Your task to perform on an android device: toggle translation in the chrome app Image 0: 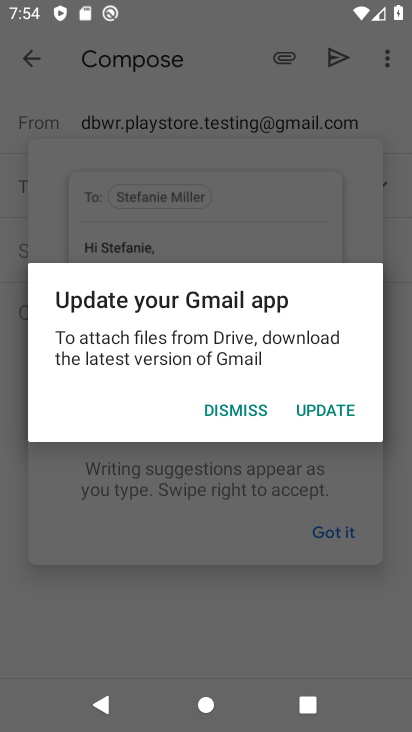
Step 0: press home button
Your task to perform on an android device: toggle translation in the chrome app Image 1: 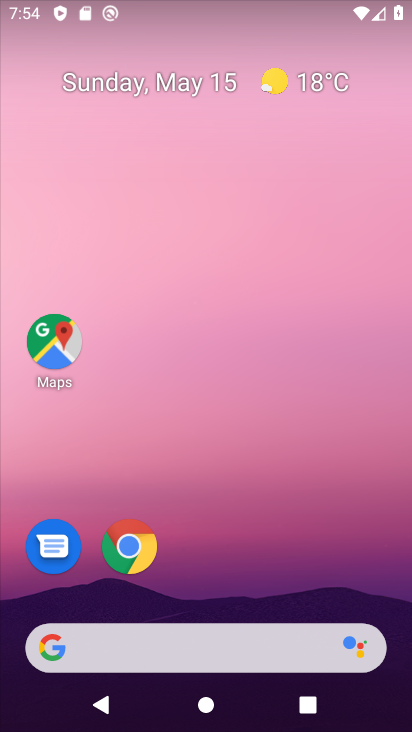
Step 1: click (127, 548)
Your task to perform on an android device: toggle translation in the chrome app Image 2: 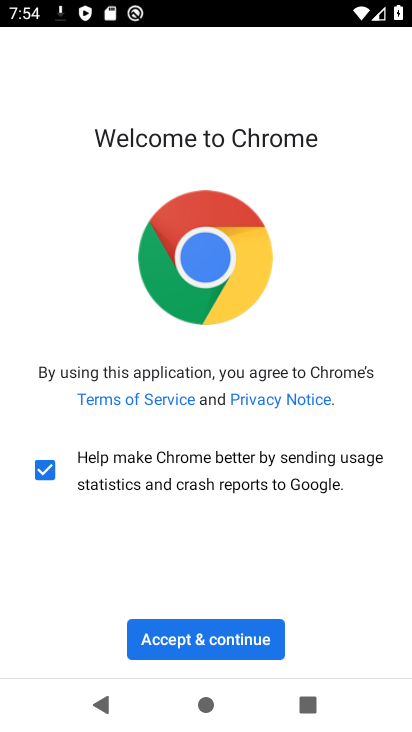
Step 2: click (209, 644)
Your task to perform on an android device: toggle translation in the chrome app Image 3: 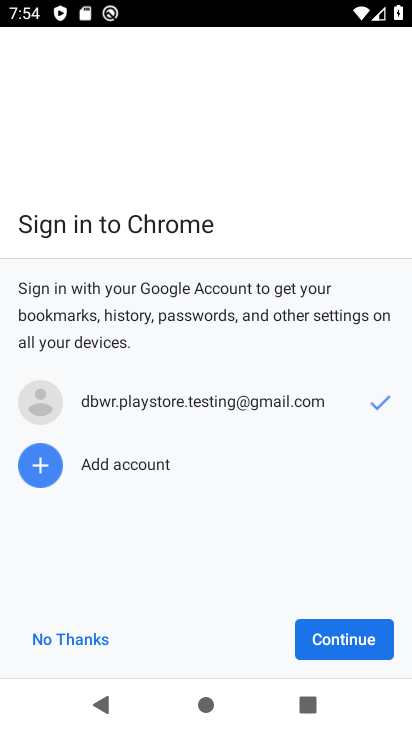
Step 3: click (324, 639)
Your task to perform on an android device: toggle translation in the chrome app Image 4: 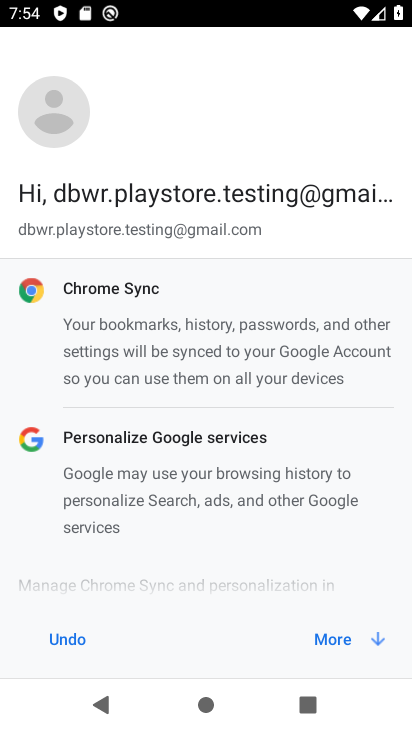
Step 4: click (327, 639)
Your task to perform on an android device: toggle translation in the chrome app Image 5: 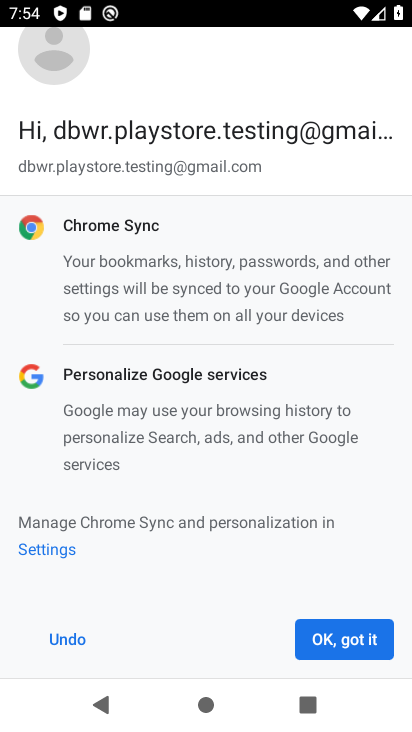
Step 5: click (327, 639)
Your task to perform on an android device: toggle translation in the chrome app Image 6: 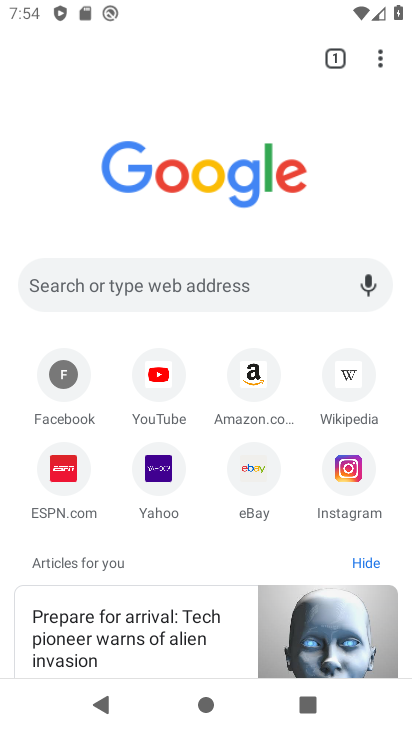
Step 6: click (380, 60)
Your task to perform on an android device: toggle translation in the chrome app Image 7: 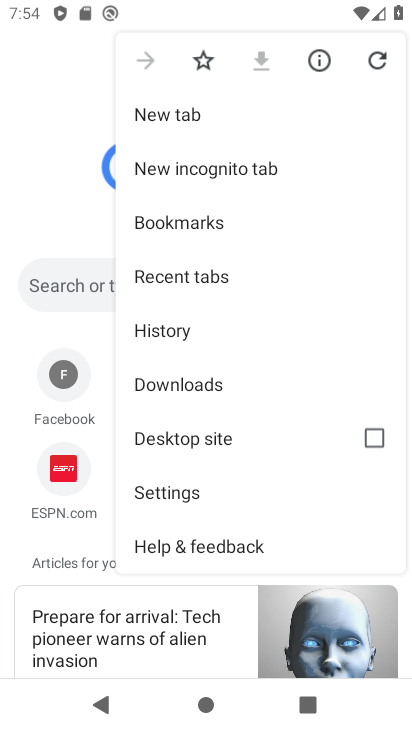
Step 7: click (170, 492)
Your task to perform on an android device: toggle translation in the chrome app Image 8: 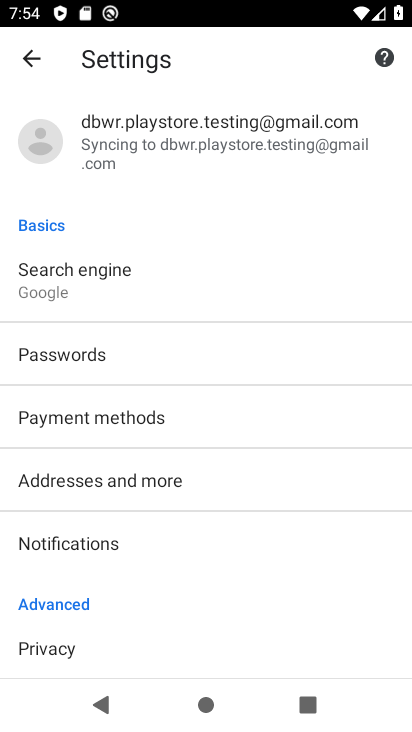
Step 8: drag from (141, 593) to (195, 457)
Your task to perform on an android device: toggle translation in the chrome app Image 9: 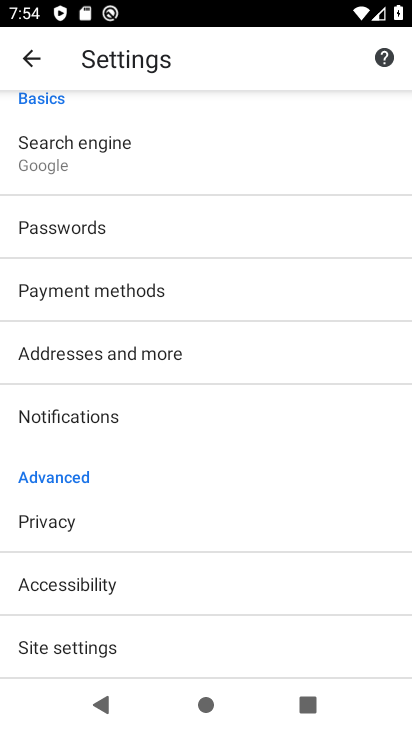
Step 9: drag from (126, 600) to (196, 481)
Your task to perform on an android device: toggle translation in the chrome app Image 10: 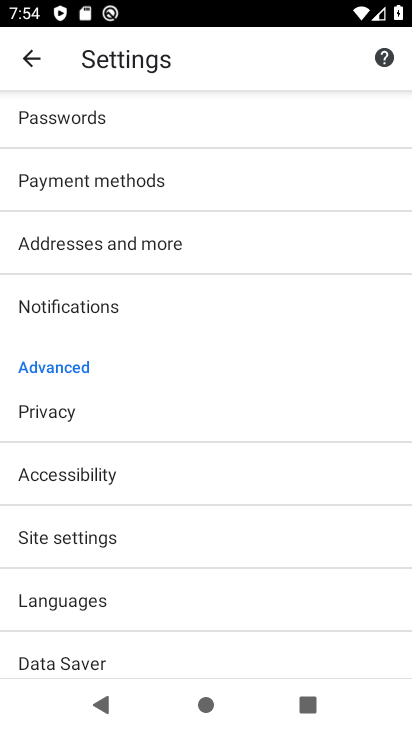
Step 10: click (83, 602)
Your task to perform on an android device: toggle translation in the chrome app Image 11: 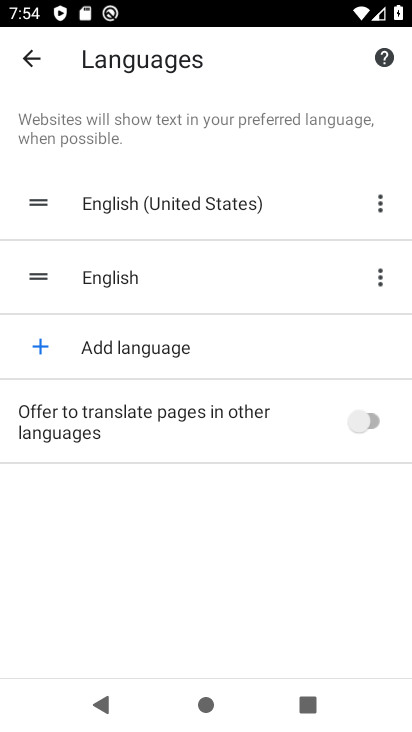
Step 11: click (369, 412)
Your task to perform on an android device: toggle translation in the chrome app Image 12: 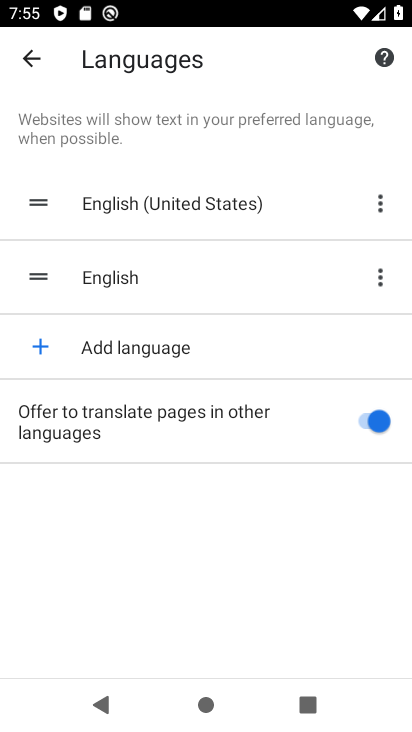
Step 12: task complete